Your task to perform on an android device: Open the phone app and click the voicemail tab. Image 0: 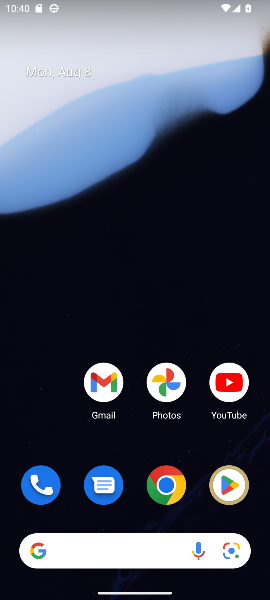
Step 0: drag from (166, 434) to (153, 28)
Your task to perform on an android device: Open the phone app and click the voicemail tab. Image 1: 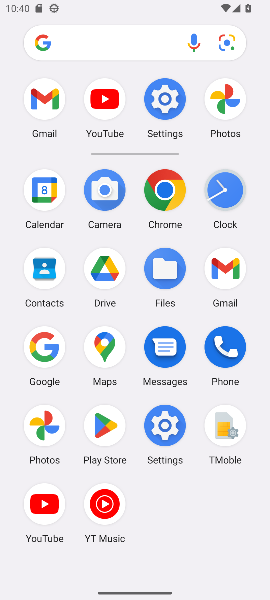
Step 1: click (238, 348)
Your task to perform on an android device: Open the phone app and click the voicemail tab. Image 2: 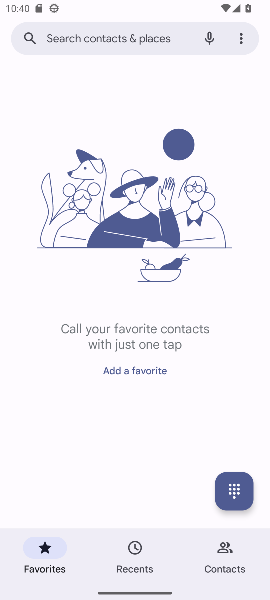
Step 2: click (239, 36)
Your task to perform on an android device: Open the phone app and click the voicemail tab. Image 3: 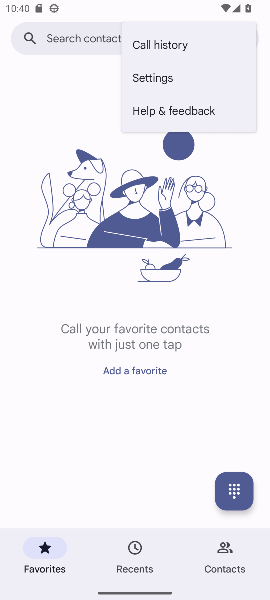
Step 3: click (159, 73)
Your task to perform on an android device: Open the phone app and click the voicemail tab. Image 4: 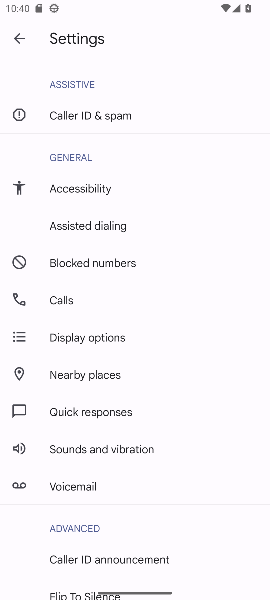
Step 4: click (77, 488)
Your task to perform on an android device: Open the phone app and click the voicemail tab. Image 5: 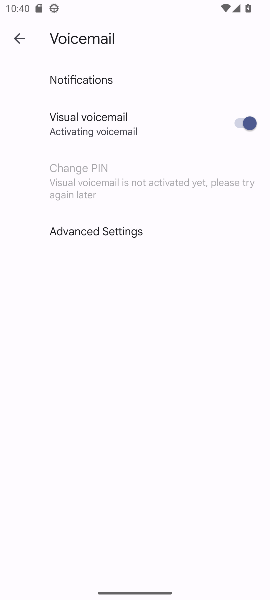
Step 5: task complete